Your task to perform on an android device: change notifications settings Image 0: 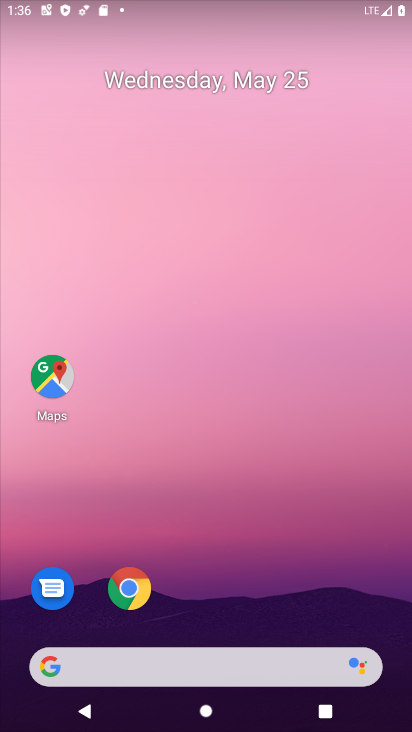
Step 0: drag from (259, 652) to (281, 19)
Your task to perform on an android device: change notifications settings Image 1: 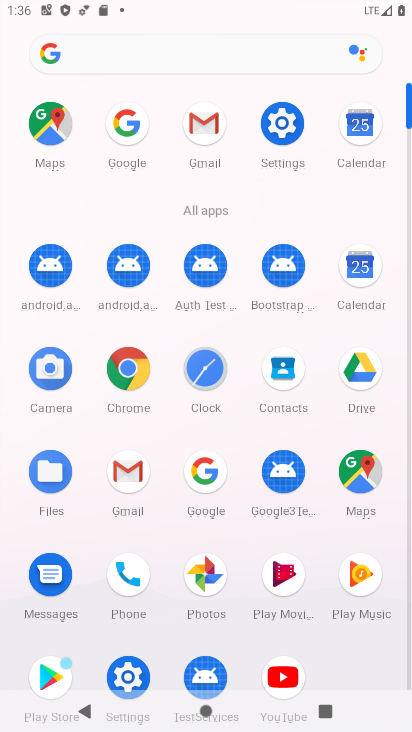
Step 1: click (284, 122)
Your task to perform on an android device: change notifications settings Image 2: 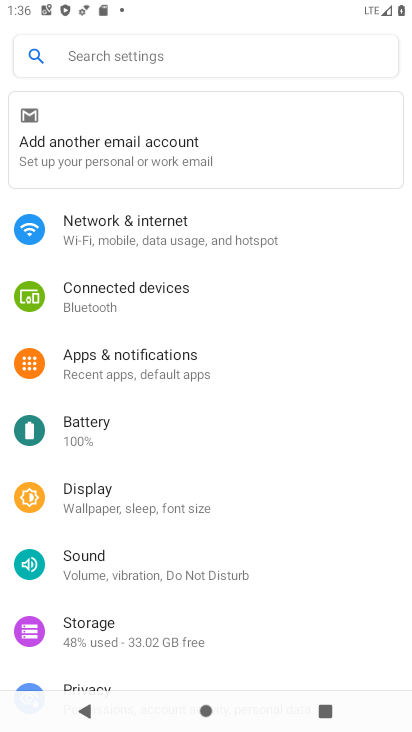
Step 2: click (133, 364)
Your task to perform on an android device: change notifications settings Image 3: 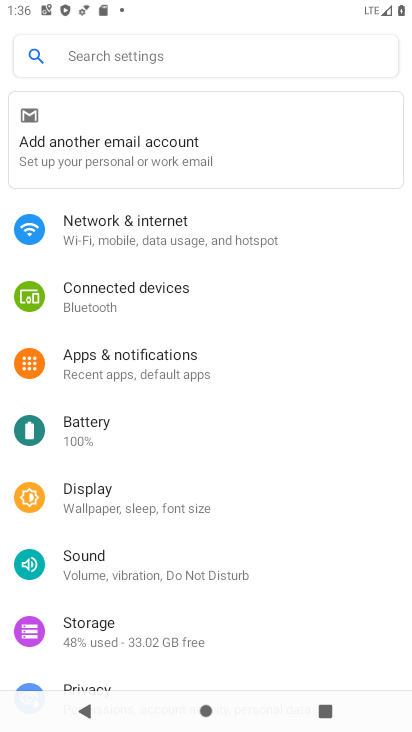
Step 3: click (131, 360)
Your task to perform on an android device: change notifications settings Image 4: 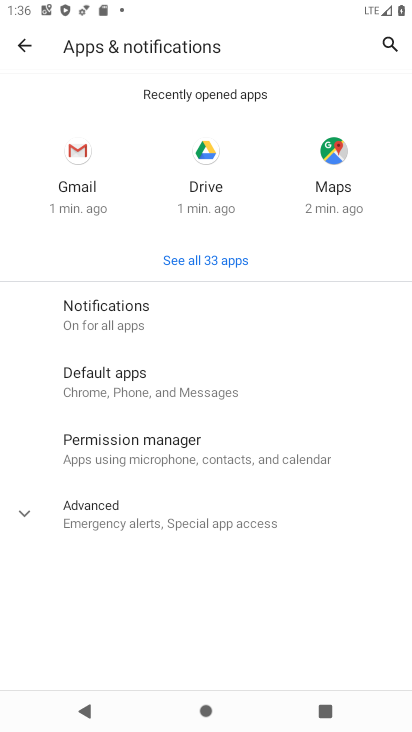
Step 4: click (104, 325)
Your task to perform on an android device: change notifications settings Image 5: 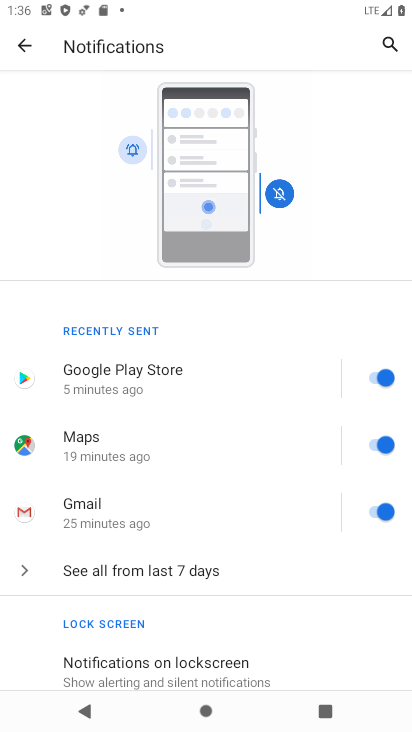
Step 5: drag from (163, 540) to (138, 197)
Your task to perform on an android device: change notifications settings Image 6: 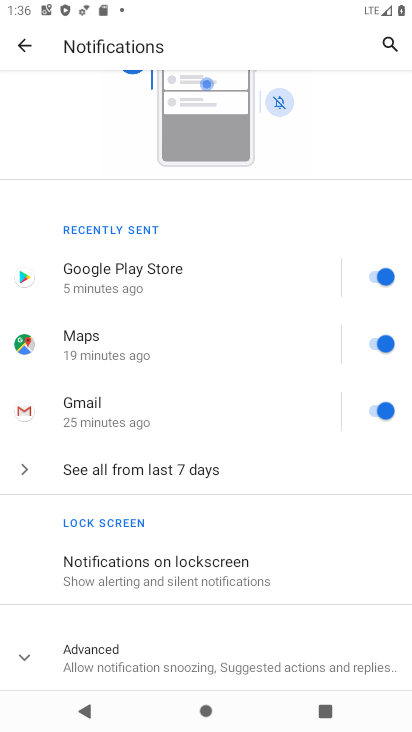
Step 6: click (132, 474)
Your task to perform on an android device: change notifications settings Image 7: 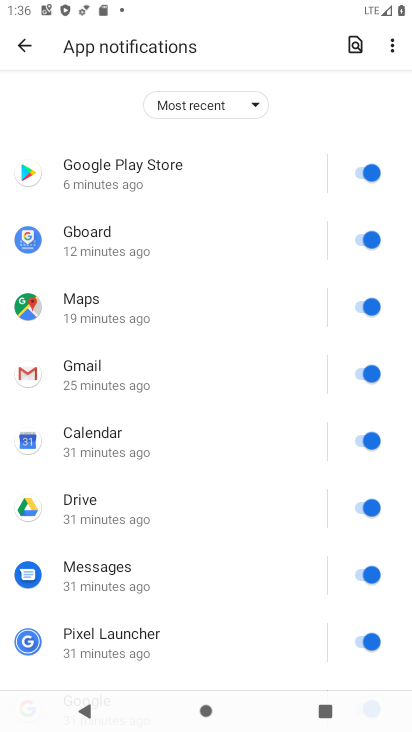
Step 7: click (256, 108)
Your task to perform on an android device: change notifications settings Image 8: 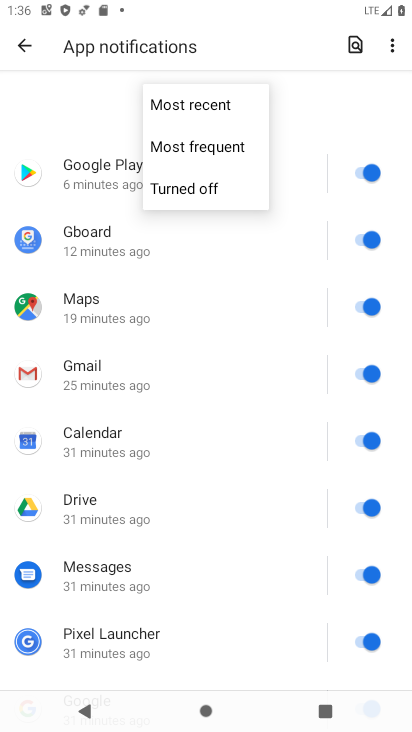
Step 8: click (201, 147)
Your task to perform on an android device: change notifications settings Image 9: 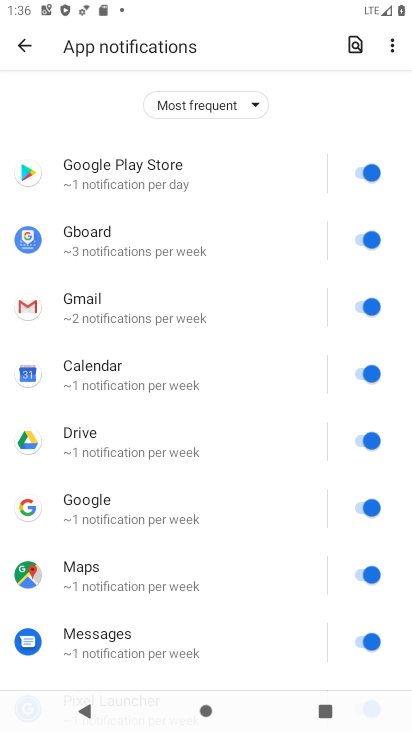
Step 9: task complete